Your task to perform on an android device: Go to Amazon Image 0: 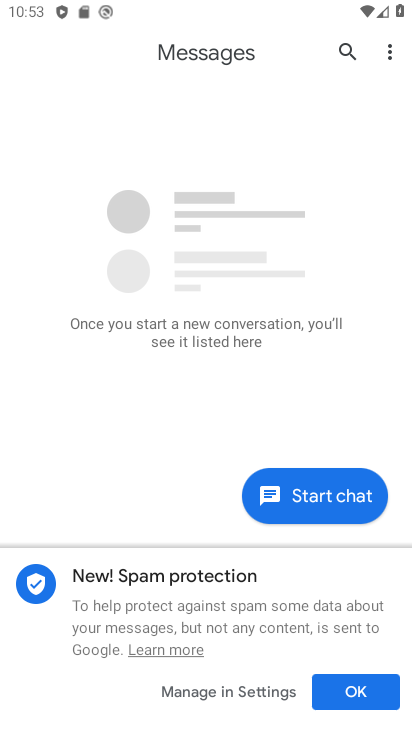
Step 0: press back button
Your task to perform on an android device: Go to Amazon Image 1: 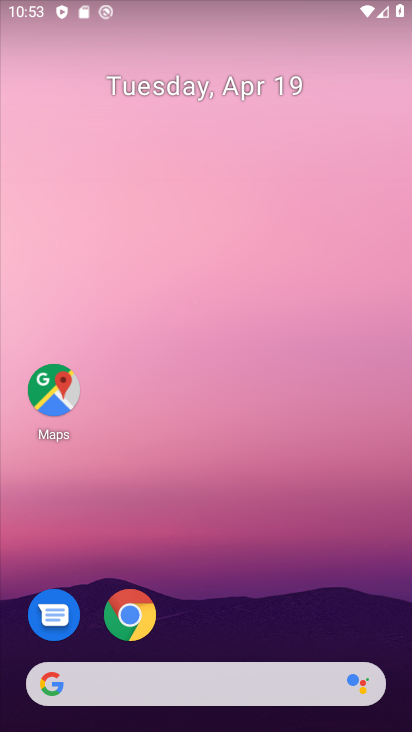
Step 1: click (130, 618)
Your task to perform on an android device: Go to Amazon Image 2: 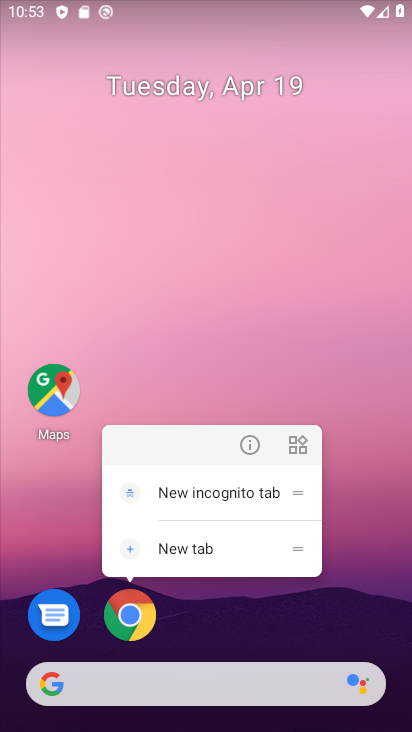
Step 2: click (265, 345)
Your task to perform on an android device: Go to Amazon Image 3: 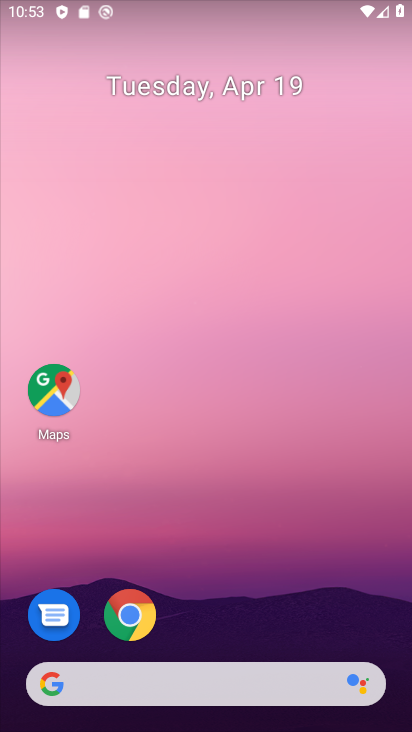
Step 3: drag from (223, 661) to (299, 317)
Your task to perform on an android device: Go to Amazon Image 4: 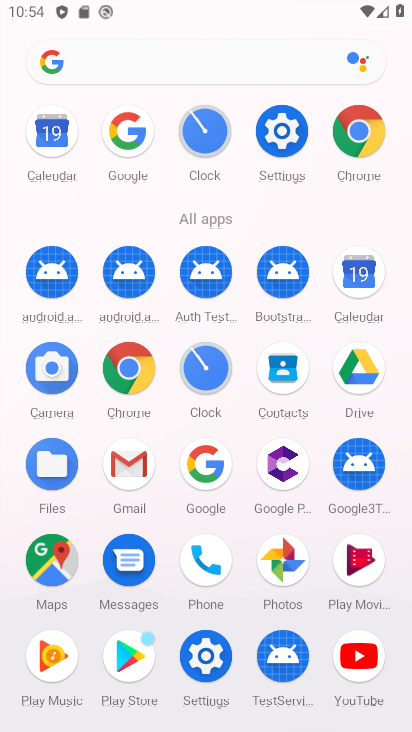
Step 4: click (121, 371)
Your task to perform on an android device: Go to Amazon Image 5: 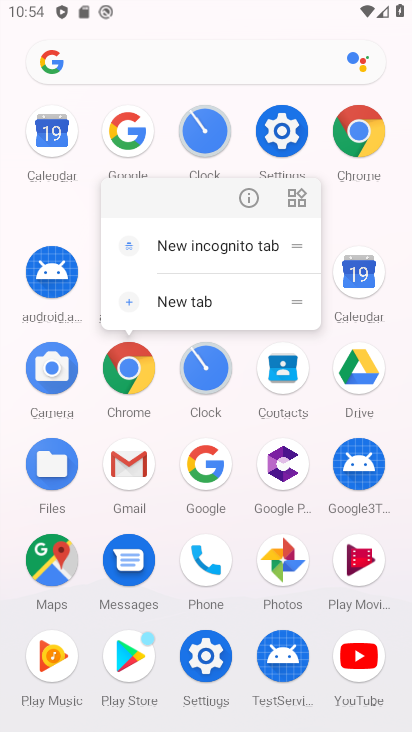
Step 5: click (130, 371)
Your task to perform on an android device: Go to Amazon Image 6: 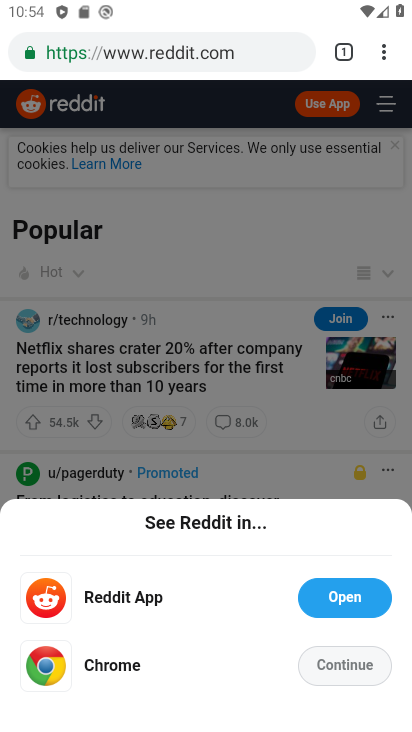
Step 6: click (344, 51)
Your task to perform on an android device: Go to Amazon Image 7: 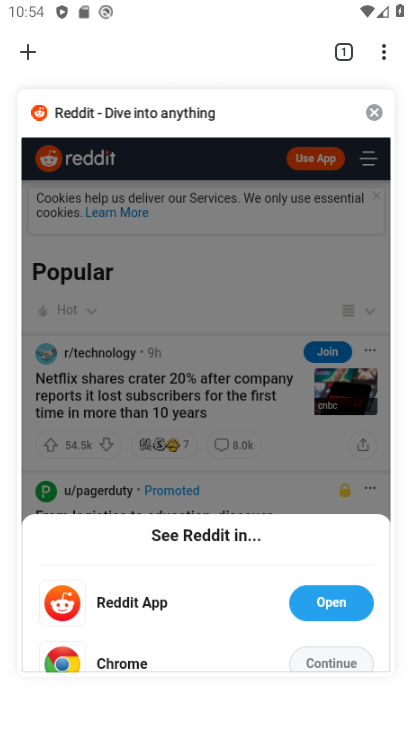
Step 7: click (377, 115)
Your task to perform on an android device: Go to Amazon Image 8: 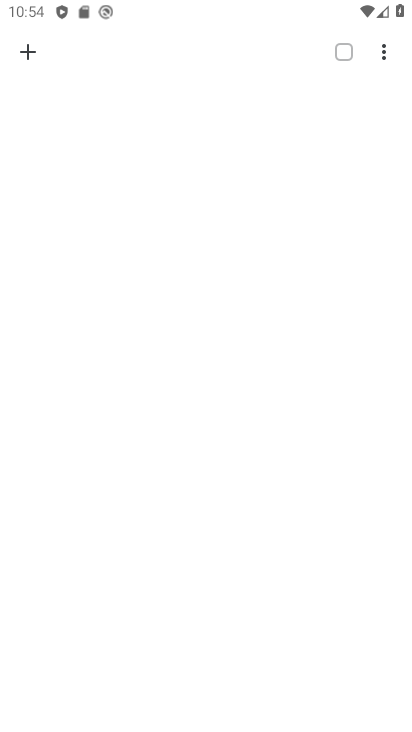
Step 8: click (27, 49)
Your task to perform on an android device: Go to Amazon Image 9: 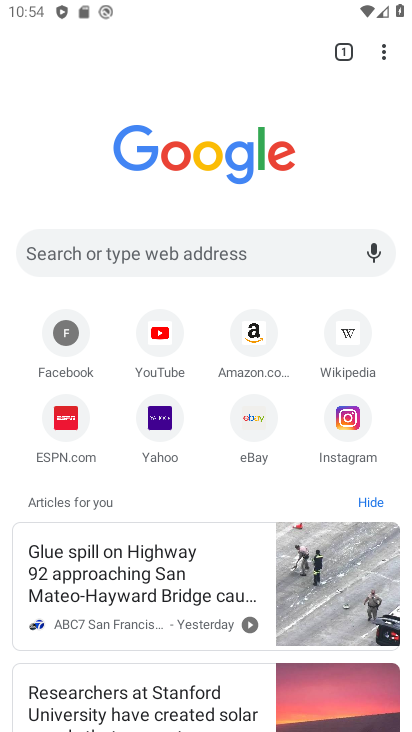
Step 9: click (249, 326)
Your task to perform on an android device: Go to Amazon Image 10: 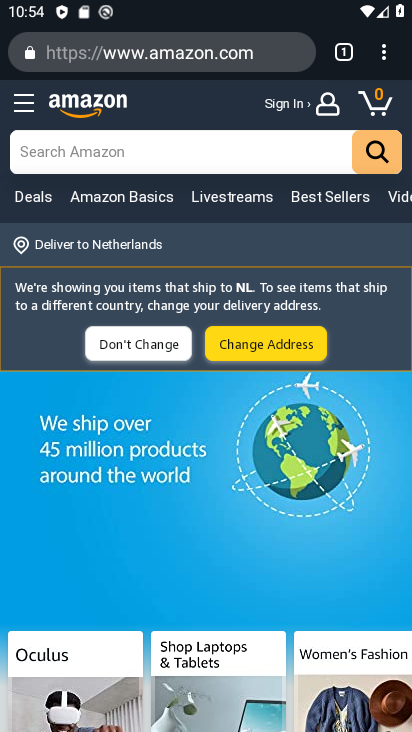
Step 10: task complete